Your task to perform on an android device: View the shopping cart on walmart. Search for logitech g502 on walmart, select the first entry, add it to the cart, then select checkout. Image 0: 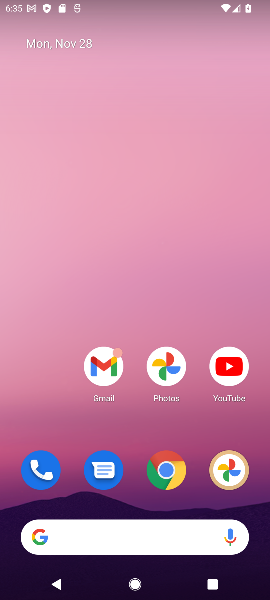
Step 0: click (121, 531)
Your task to perform on an android device: View the shopping cart on walmart. Search for logitech g502 on walmart, select the first entry, add it to the cart, then select checkout. Image 1: 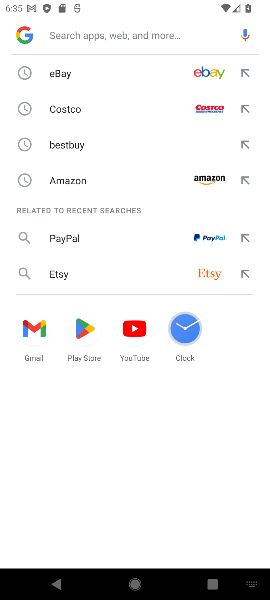
Step 1: type "walmart"
Your task to perform on an android device: View the shopping cart on walmart. Search for logitech g502 on walmart, select the first entry, add it to the cart, then select checkout. Image 2: 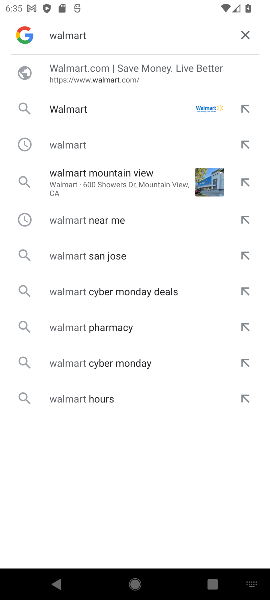
Step 2: click (111, 119)
Your task to perform on an android device: View the shopping cart on walmart. Search for logitech g502 on walmart, select the first entry, add it to the cart, then select checkout. Image 3: 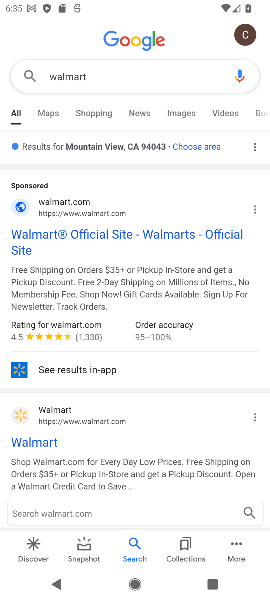
Step 3: click (37, 243)
Your task to perform on an android device: View the shopping cart on walmart. Search for logitech g502 on walmart, select the first entry, add it to the cart, then select checkout. Image 4: 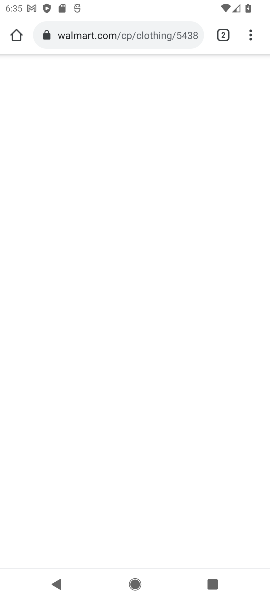
Step 4: press back button
Your task to perform on an android device: View the shopping cart on walmart. Search for logitech g502 on walmart, select the first entry, add it to the cart, then select checkout. Image 5: 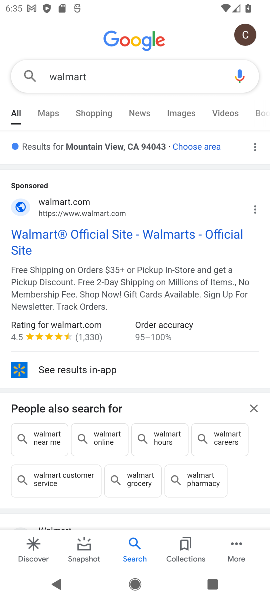
Step 5: drag from (149, 405) to (157, 154)
Your task to perform on an android device: View the shopping cart on walmart. Search for logitech g502 on walmart, select the first entry, add it to the cart, then select checkout. Image 6: 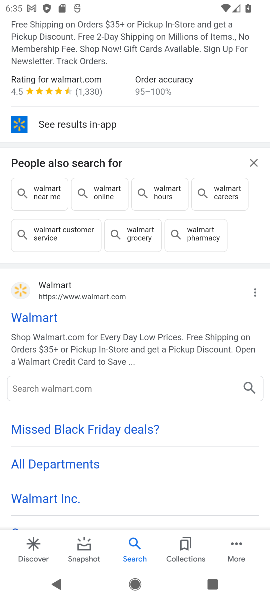
Step 6: click (23, 315)
Your task to perform on an android device: View the shopping cart on walmart. Search for logitech g502 on walmart, select the first entry, add it to the cart, then select checkout. Image 7: 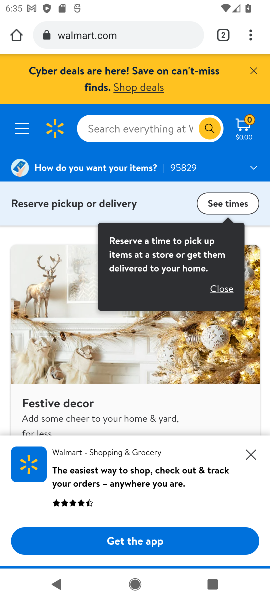
Step 7: click (251, 459)
Your task to perform on an android device: View the shopping cart on walmart. Search for logitech g502 on walmart, select the first entry, add it to the cart, then select checkout. Image 8: 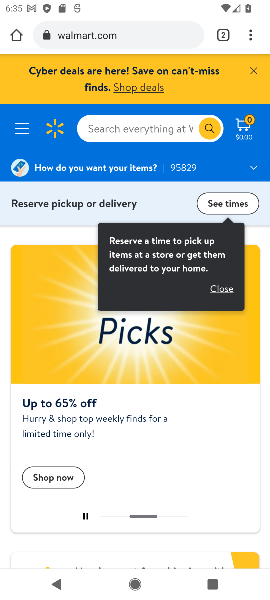
Step 8: click (252, 136)
Your task to perform on an android device: View the shopping cart on walmart. Search for logitech g502 on walmart, select the first entry, add it to the cart, then select checkout. Image 9: 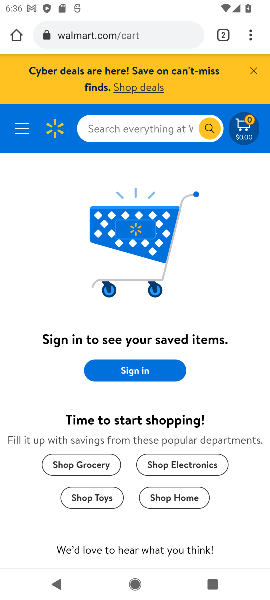
Step 9: click (131, 133)
Your task to perform on an android device: View the shopping cart on walmart. Search for logitech g502 on walmart, select the first entry, add it to the cart, then select checkout. Image 10: 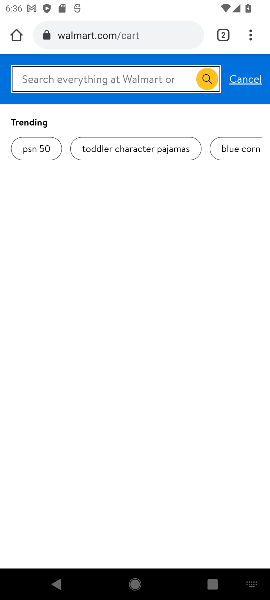
Step 10: type " logitech g502"
Your task to perform on an android device: View the shopping cart on walmart. Search for logitech g502 on walmart, select the first entry, add it to the cart, then select checkout. Image 11: 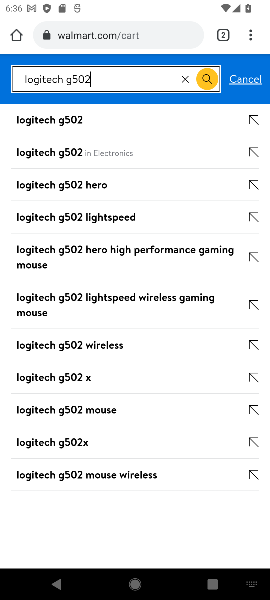
Step 11: click (208, 77)
Your task to perform on an android device: View the shopping cart on walmart. Search for logitech g502 on walmart, select the first entry, add it to the cart, then select checkout. Image 12: 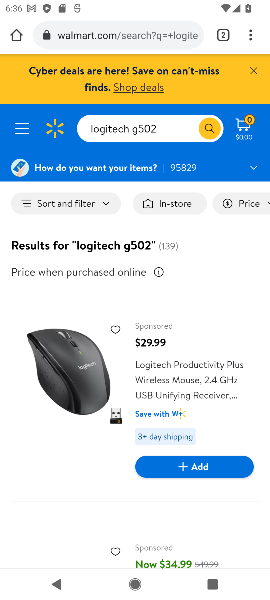
Step 12: click (183, 467)
Your task to perform on an android device: View the shopping cart on walmart. Search for logitech g502 on walmart, select the first entry, add it to the cart, then select checkout. Image 13: 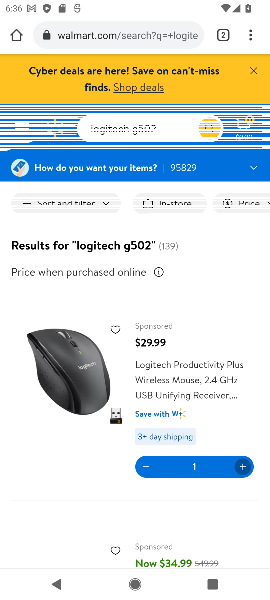
Step 13: click (238, 122)
Your task to perform on an android device: View the shopping cart on walmart. Search for logitech g502 on walmart, select the first entry, add it to the cart, then select checkout. Image 14: 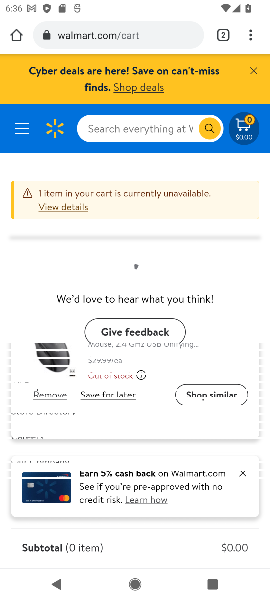
Step 14: click (243, 471)
Your task to perform on an android device: View the shopping cart on walmart. Search for logitech g502 on walmart, select the first entry, add it to the cart, then select checkout. Image 15: 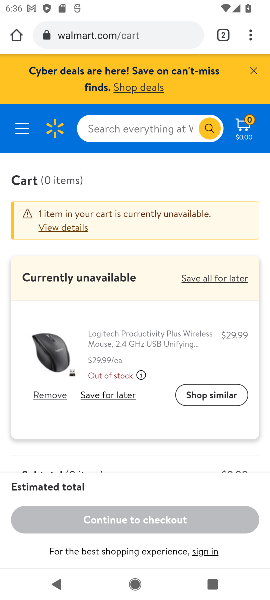
Step 15: task complete